Your task to perform on an android device: Set the phone to "Do not disturb". Image 0: 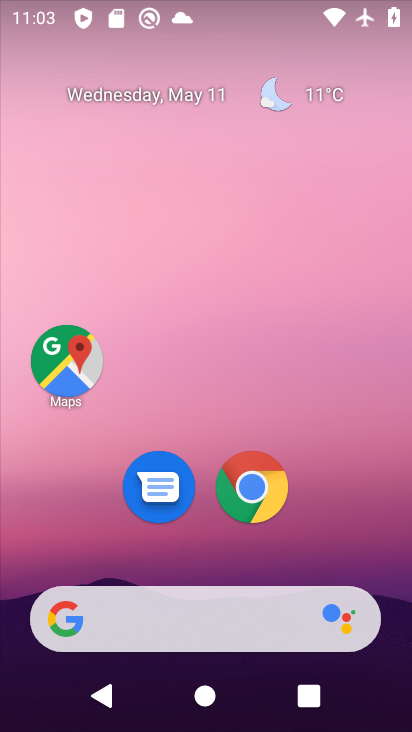
Step 0: drag from (341, 505) to (226, 46)
Your task to perform on an android device: Set the phone to "Do not disturb". Image 1: 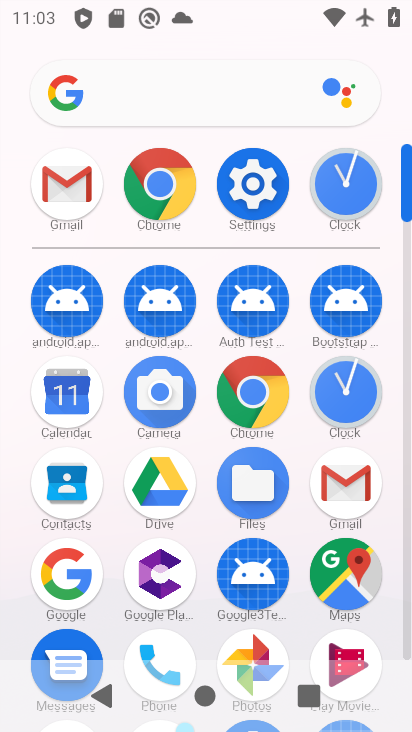
Step 1: drag from (7, 569) to (27, 238)
Your task to perform on an android device: Set the phone to "Do not disturb". Image 2: 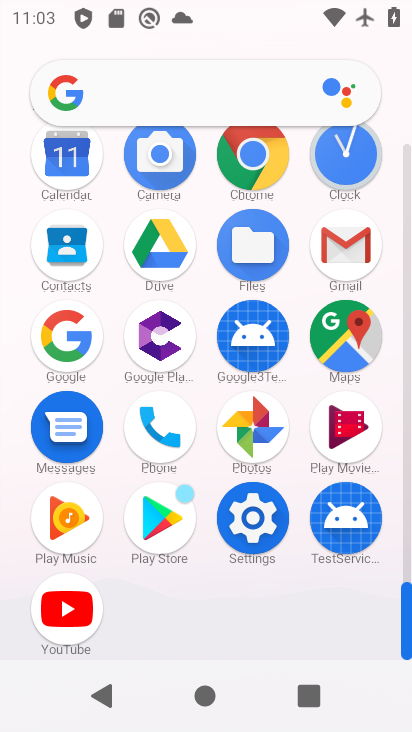
Step 2: click (251, 516)
Your task to perform on an android device: Set the phone to "Do not disturb". Image 3: 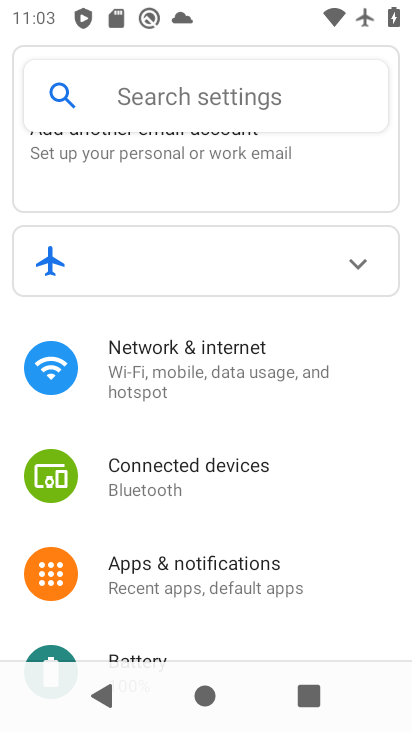
Step 3: drag from (289, 538) to (286, 314)
Your task to perform on an android device: Set the phone to "Do not disturb". Image 4: 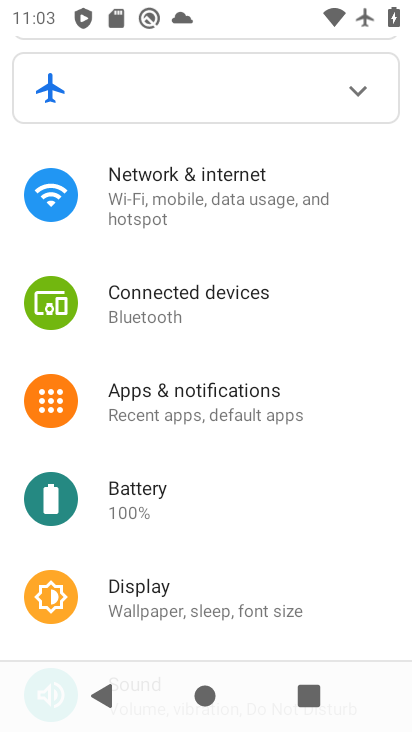
Step 4: drag from (224, 540) to (279, 222)
Your task to perform on an android device: Set the phone to "Do not disturb". Image 5: 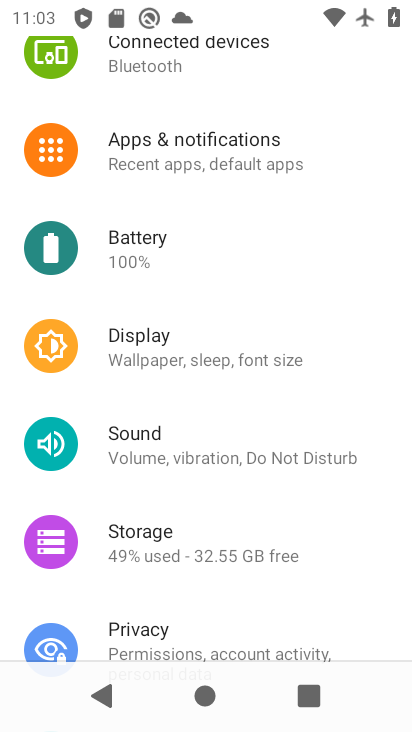
Step 5: click (216, 451)
Your task to perform on an android device: Set the phone to "Do not disturb". Image 6: 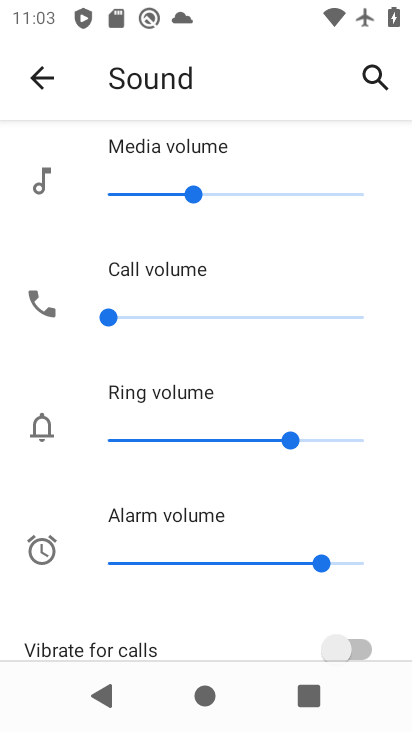
Step 6: drag from (196, 550) to (235, 135)
Your task to perform on an android device: Set the phone to "Do not disturb". Image 7: 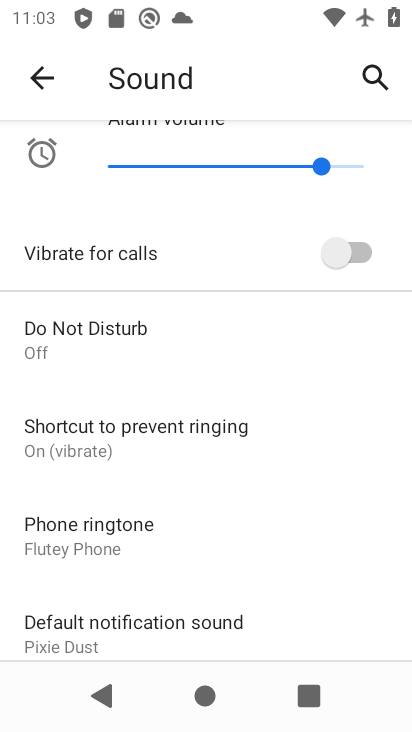
Step 7: click (130, 341)
Your task to perform on an android device: Set the phone to "Do not disturb". Image 8: 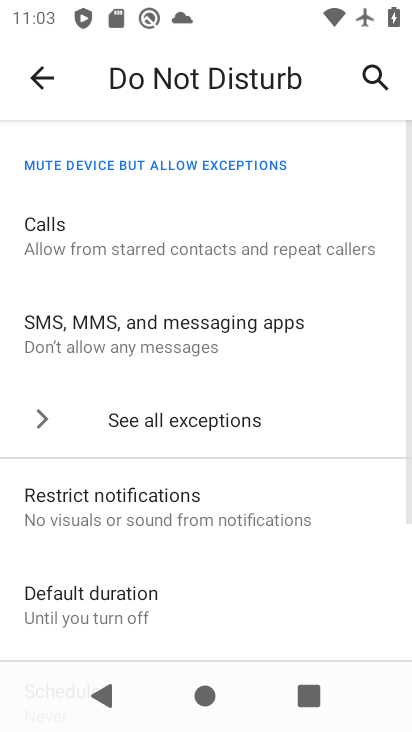
Step 8: drag from (219, 543) to (243, 153)
Your task to perform on an android device: Set the phone to "Do not disturb". Image 9: 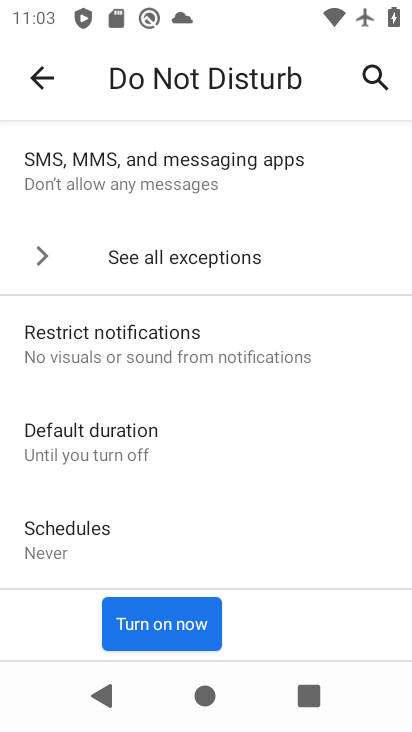
Step 9: click (153, 614)
Your task to perform on an android device: Set the phone to "Do not disturb". Image 10: 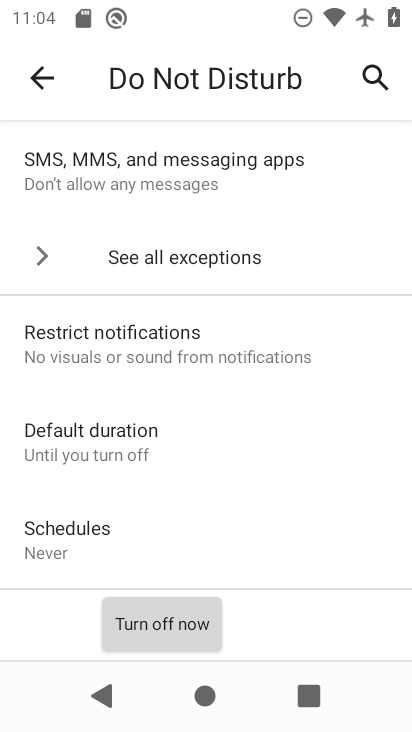
Step 10: task complete